Your task to perform on an android device: Go to sound settings Image 0: 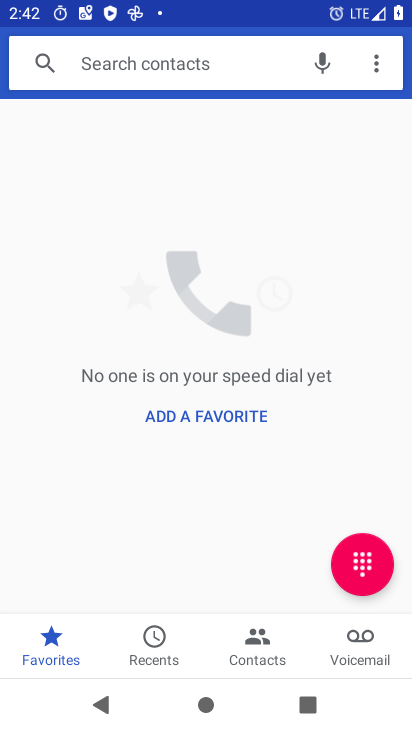
Step 0: press home button
Your task to perform on an android device: Go to sound settings Image 1: 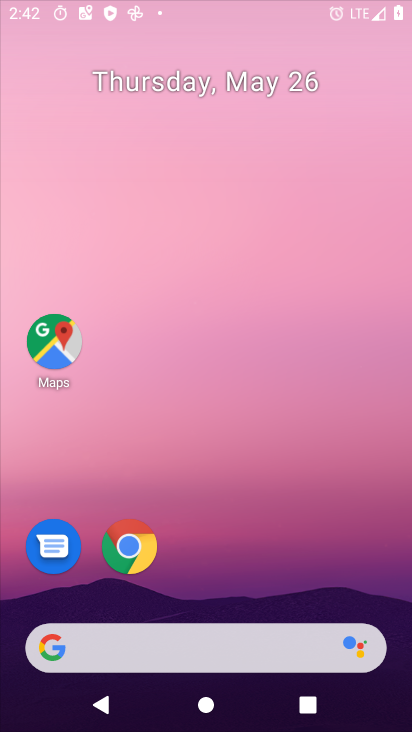
Step 1: drag from (222, 583) to (285, 89)
Your task to perform on an android device: Go to sound settings Image 2: 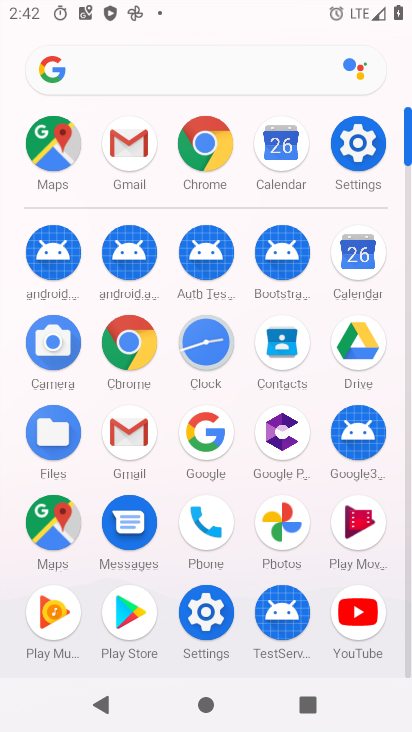
Step 2: click (354, 138)
Your task to perform on an android device: Go to sound settings Image 3: 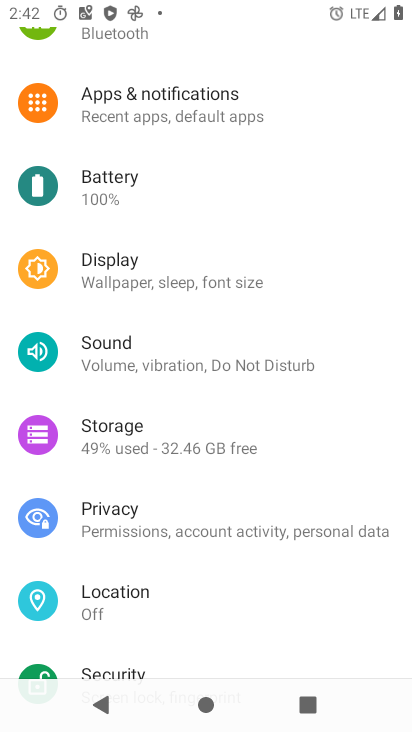
Step 3: click (116, 349)
Your task to perform on an android device: Go to sound settings Image 4: 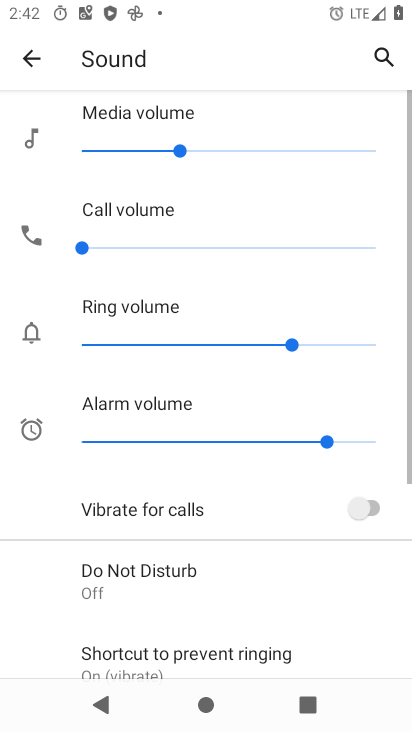
Step 4: task complete